Your task to perform on an android device: clear history in the chrome app Image 0: 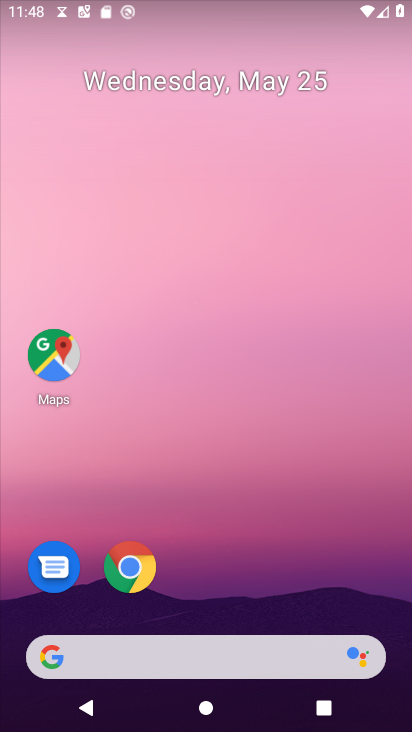
Step 0: drag from (183, 578) to (183, 6)
Your task to perform on an android device: clear history in the chrome app Image 1: 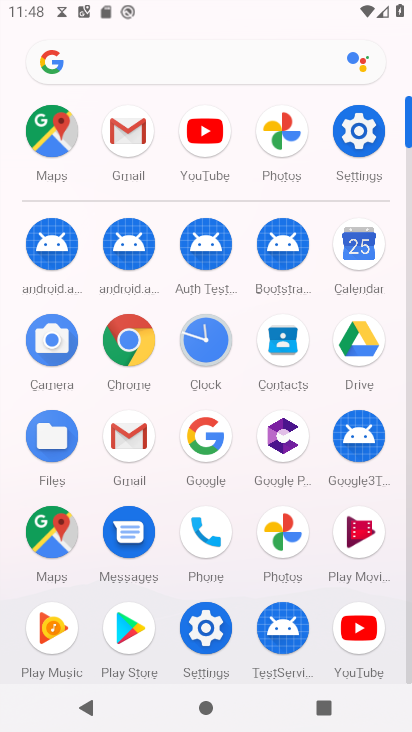
Step 1: click (126, 343)
Your task to perform on an android device: clear history in the chrome app Image 2: 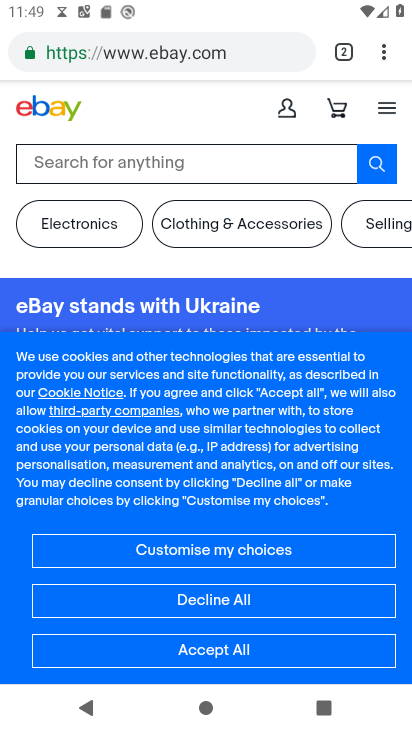
Step 2: click (381, 61)
Your task to perform on an android device: clear history in the chrome app Image 3: 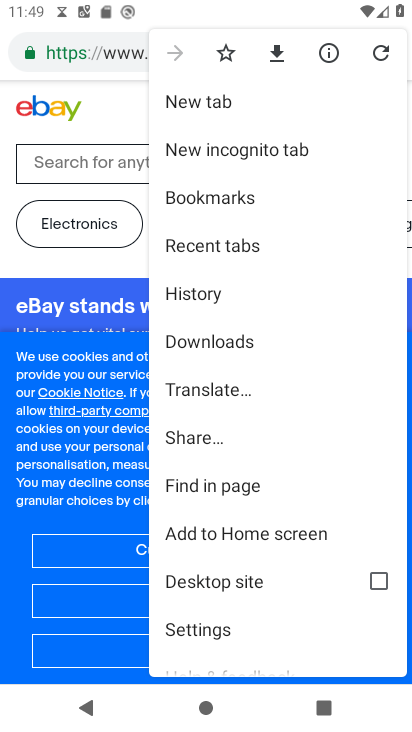
Step 3: click (253, 629)
Your task to perform on an android device: clear history in the chrome app Image 4: 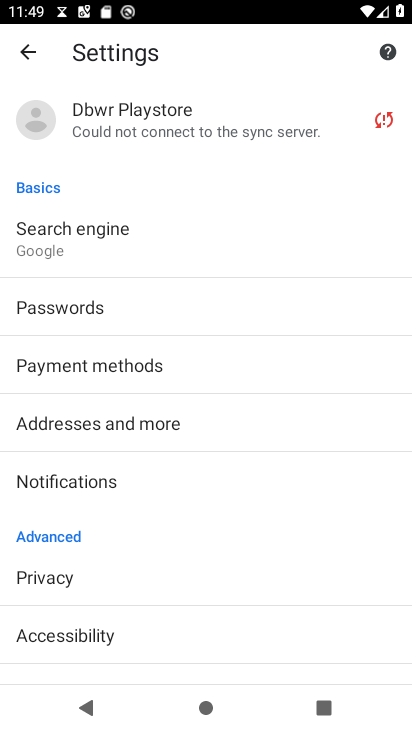
Step 4: drag from (231, 573) to (217, 251)
Your task to perform on an android device: clear history in the chrome app Image 5: 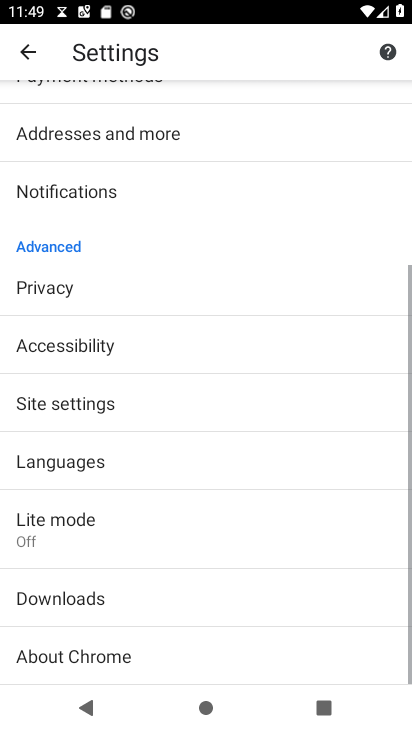
Step 5: drag from (237, 572) to (198, 257)
Your task to perform on an android device: clear history in the chrome app Image 6: 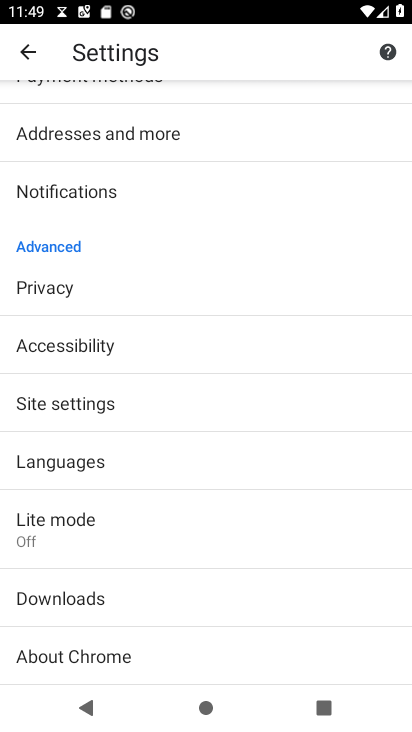
Step 6: click (172, 296)
Your task to perform on an android device: clear history in the chrome app Image 7: 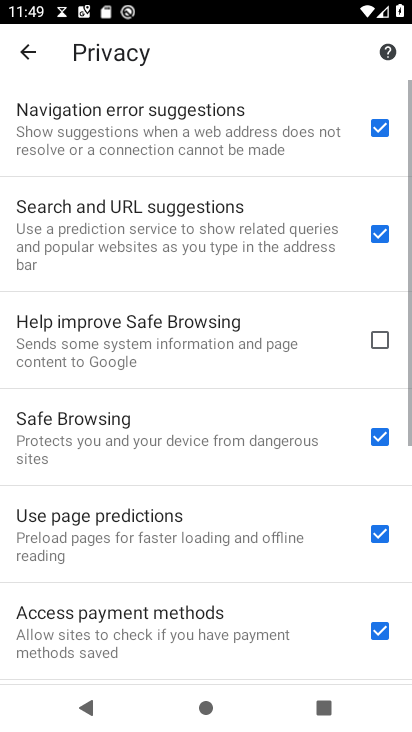
Step 7: drag from (227, 565) to (247, 197)
Your task to perform on an android device: clear history in the chrome app Image 8: 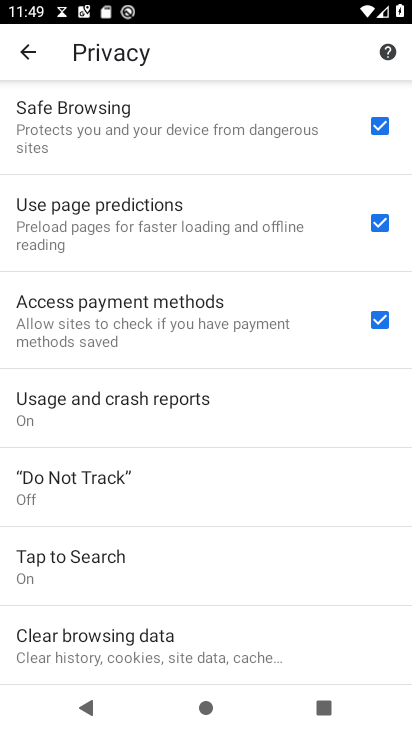
Step 8: drag from (196, 562) to (204, 169)
Your task to perform on an android device: clear history in the chrome app Image 9: 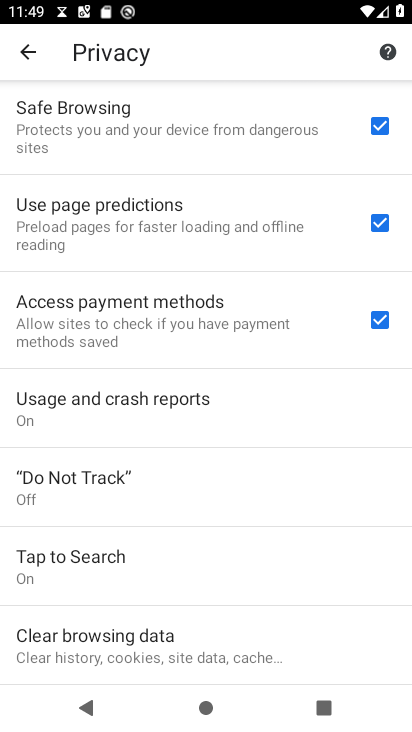
Step 9: click (174, 639)
Your task to perform on an android device: clear history in the chrome app Image 10: 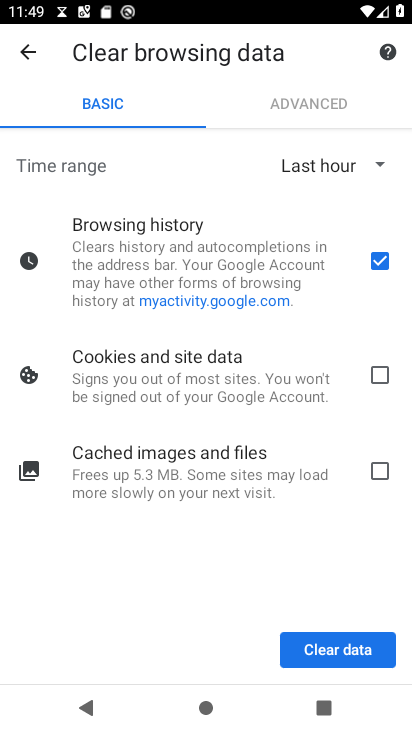
Step 10: click (344, 647)
Your task to perform on an android device: clear history in the chrome app Image 11: 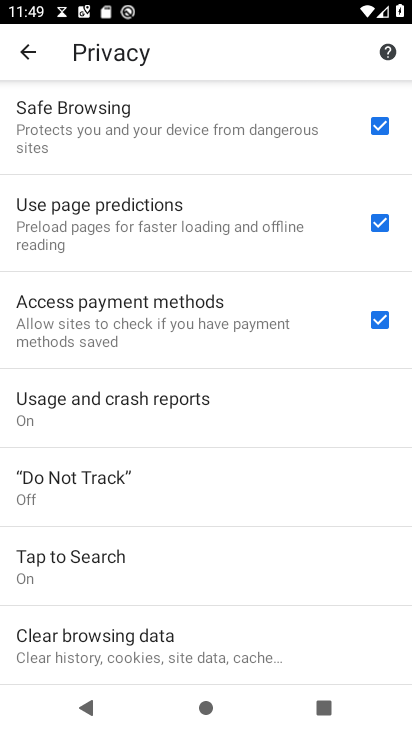
Step 11: task complete